Your task to perform on an android device: View the shopping cart on amazon. Add logitech g903 to the cart on amazon Image 0: 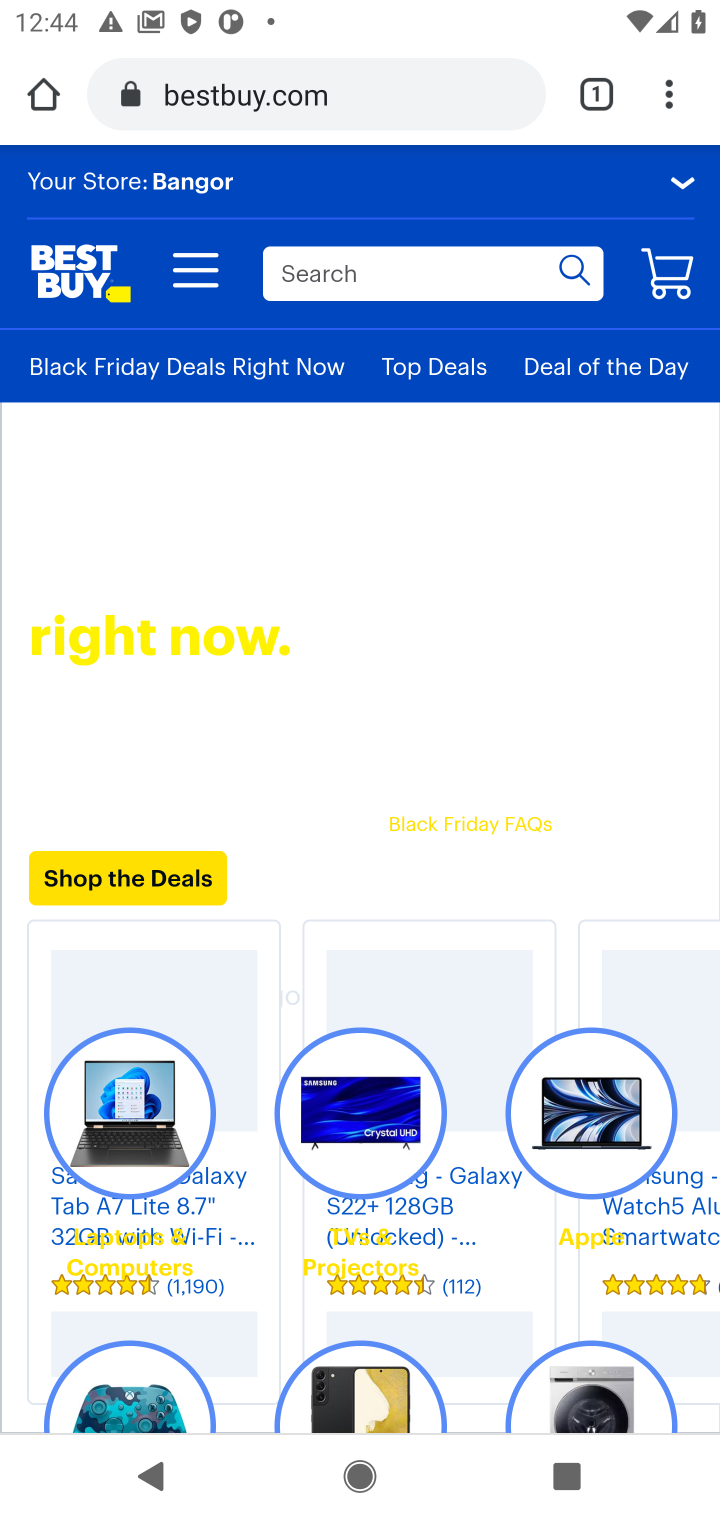
Step 0: task complete